Your task to perform on an android device: change the clock display to digital Image 0: 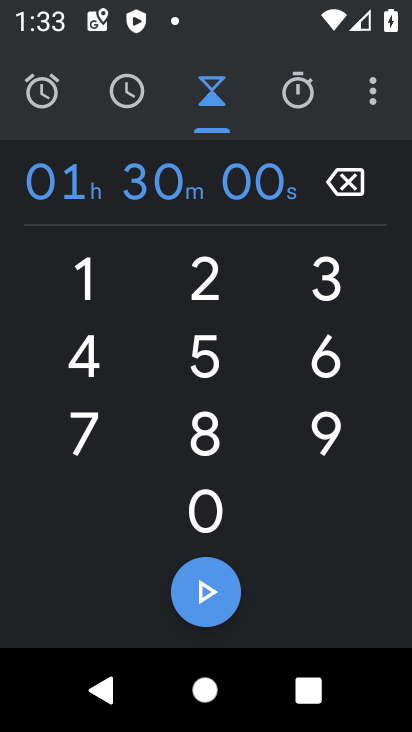
Step 0: press home button
Your task to perform on an android device: change the clock display to digital Image 1: 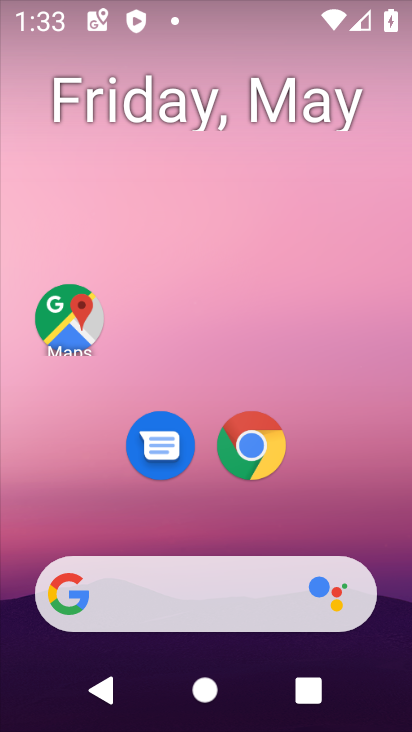
Step 1: drag from (398, 592) to (383, 159)
Your task to perform on an android device: change the clock display to digital Image 2: 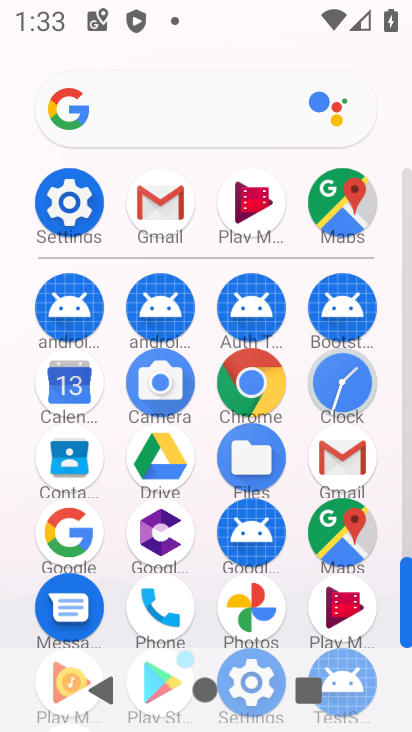
Step 2: click (340, 373)
Your task to perform on an android device: change the clock display to digital Image 3: 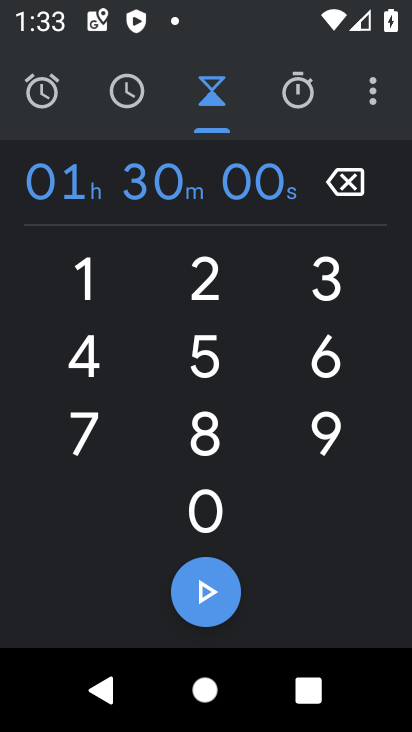
Step 3: click (373, 103)
Your task to perform on an android device: change the clock display to digital Image 4: 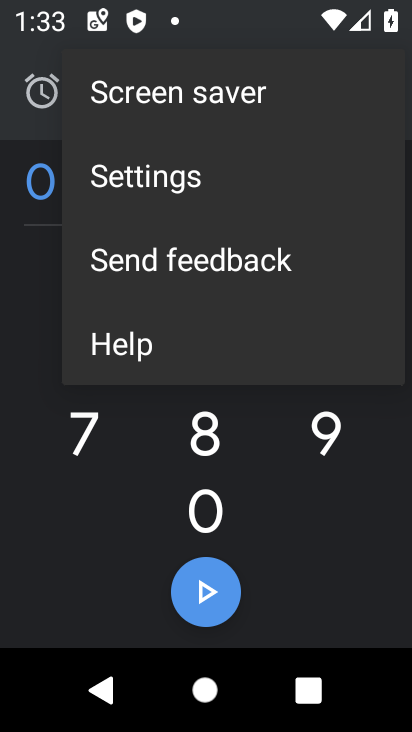
Step 4: click (170, 162)
Your task to perform on an android device: change the clock display to digital Image 5: 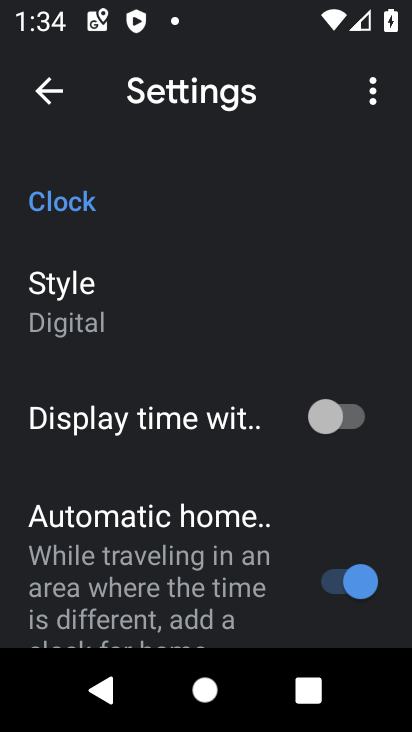
Step 5: task complete